Your task to perform on an android device: Open Amazon Image 0: 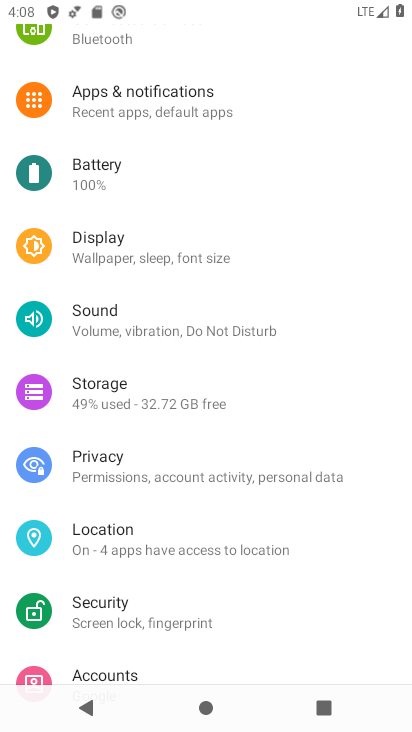
Step 0: press home button
Your task to perform on an android device: Open Amazon Image 1: 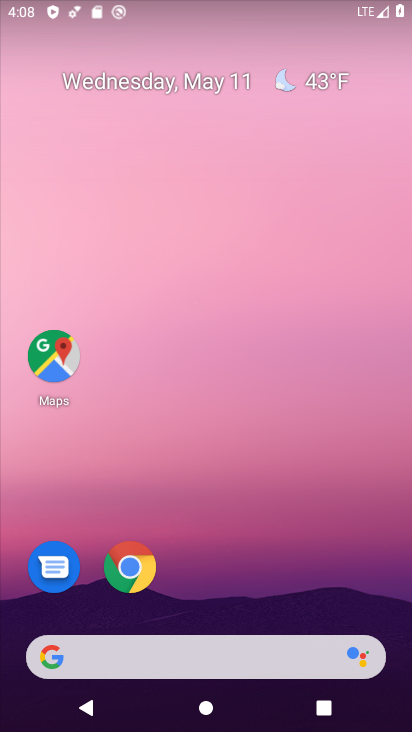
Step 1: click (133, 568)
Your task to perform on an android device: Open Amazon Image 2: 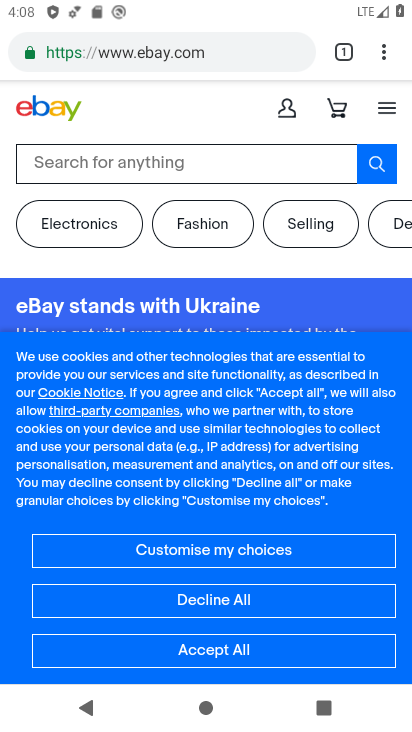
Step 2: click (349, 51)
Your task to perform on an android device: Open Amazon Image 3: 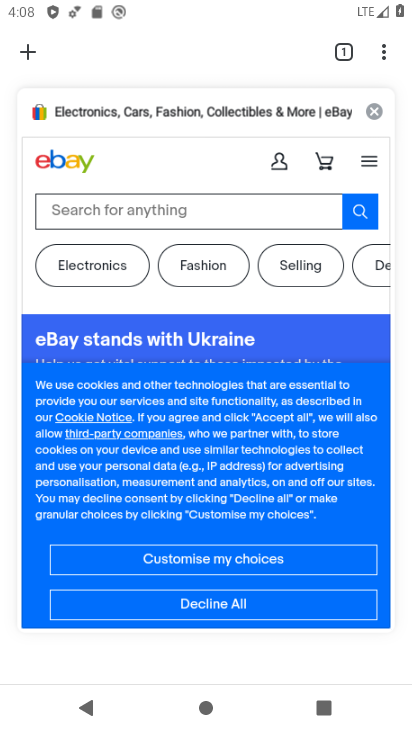
Step 3: click (17, 52)
Your task to perform on an android device: Open Amazon Image 4: 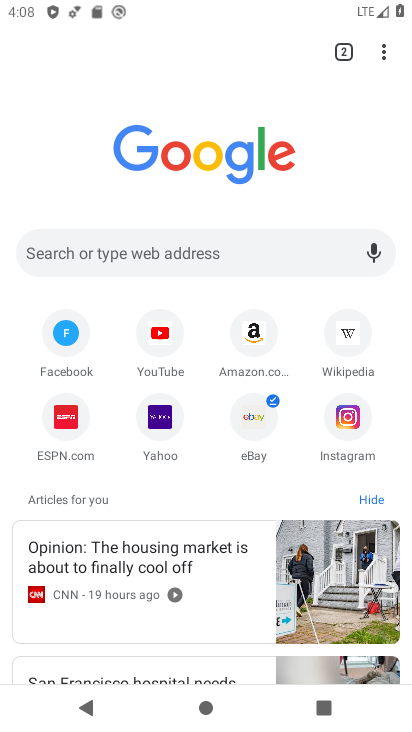
Step 4: click (253, 322)
Your task to perform on an android device: Open Amazon Image 5: 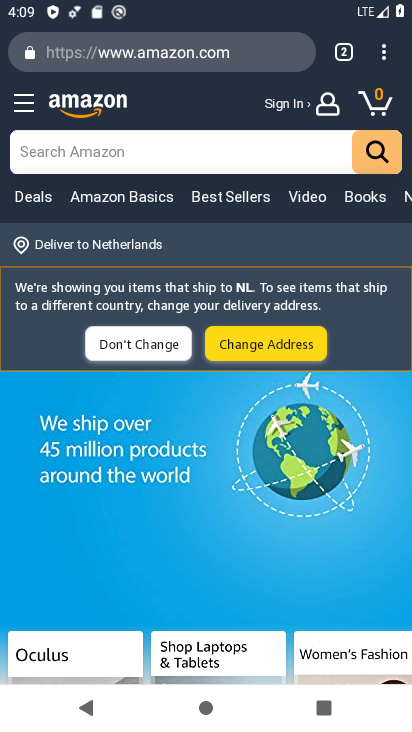
Step 5: task complete